Your task to perform on an android device: Go to privacy settings Image 0: 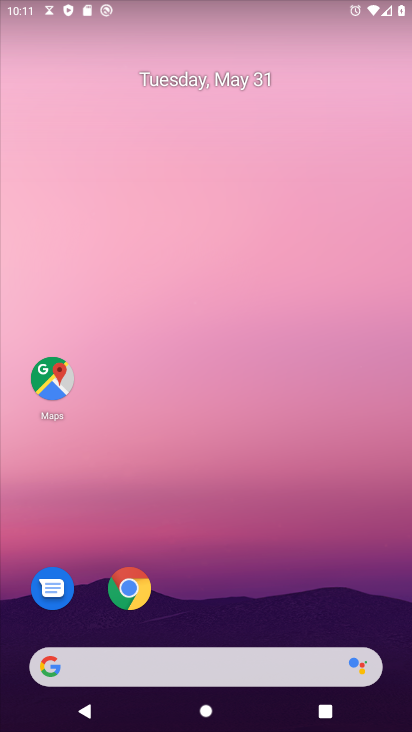
Step 0: drag from (267, 560) to (191, 116)
Your task to perform on an android device: Go to privacy settings Image 1: 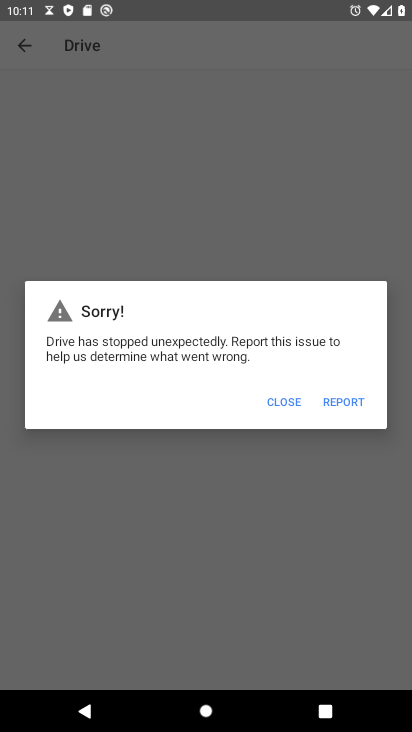
Step 1: press home button
Your task to perform on an android device: Go to privacy settings Image 2: 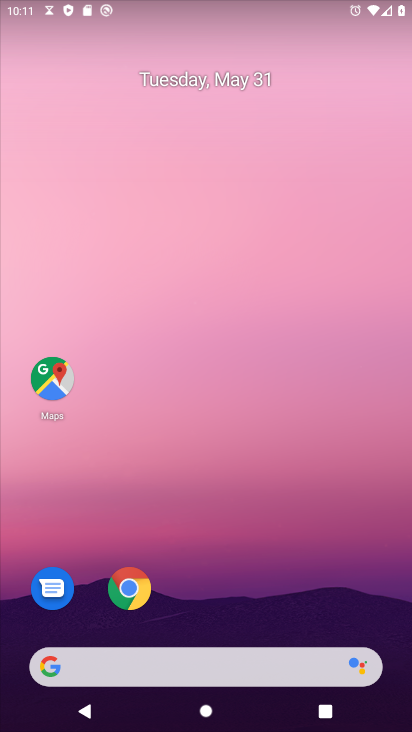
Step 2: drag from (260, 599) to (156, 146)
Your task to perform on an android device: Go to privacy settings Image 3: 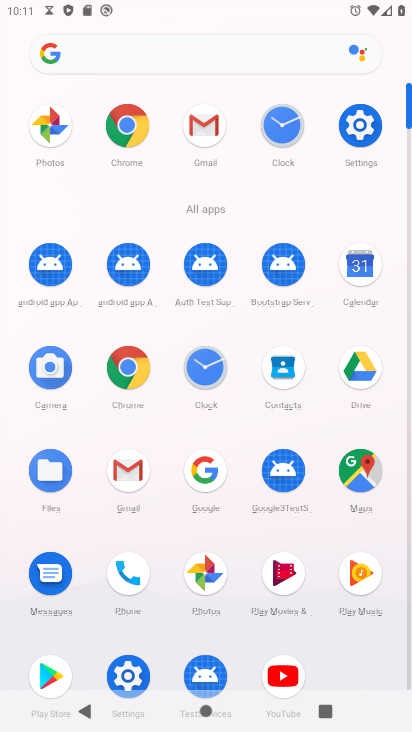
Step 3: click (360, 126)
Your task to perform on an android device: Go to privacy settings Image 4: 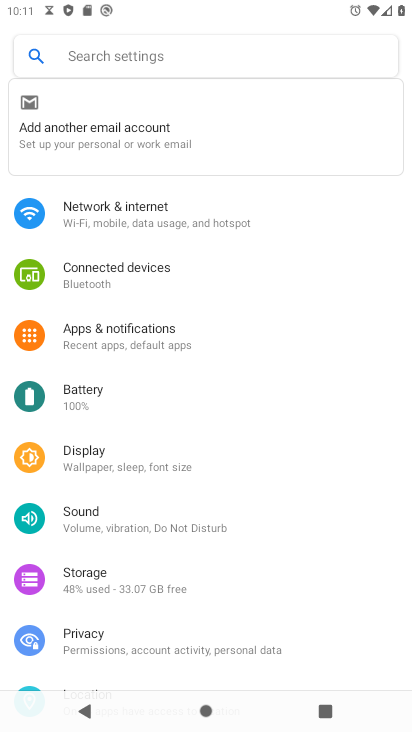
Step 4: drag from (124, 613) to (130, 459)
Your task to perform on an android device: Go to privacy settings Image 5: 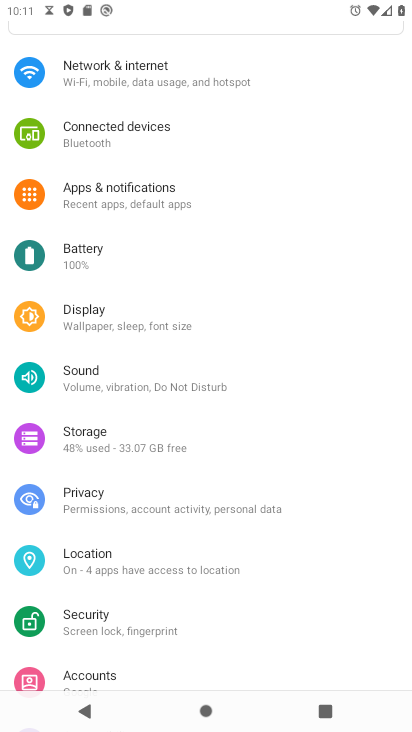
Step 5: click (173, 501)
Your task to perform on an android device: Go to privacy settings Image 6: 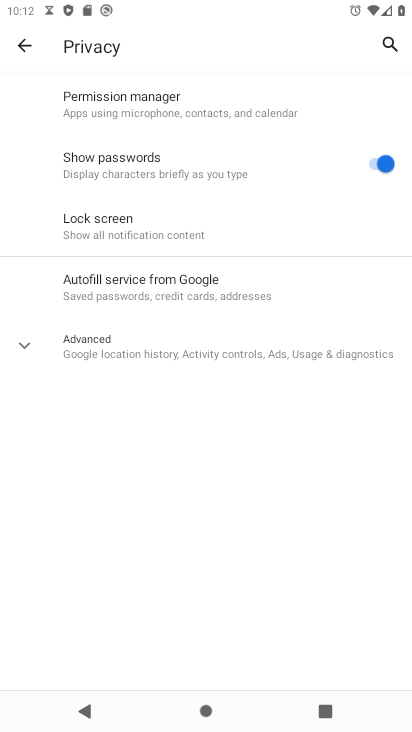
Step 6: task complete